Your task to perform on an android device: Open notification settings Image 0: 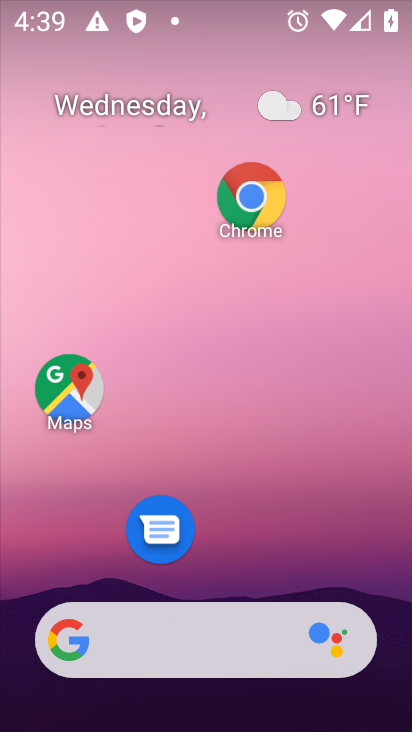
Step 0: drag from (251, 572) to (279, 82)
Your task to perform on an android device: Open notification settings Image 1: 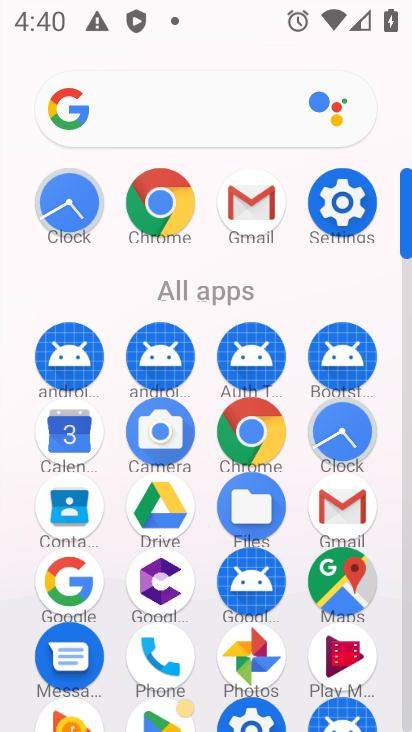
Step 1: click (346, 203)
Your task to perform on an android device: Open notification settings Image 2: 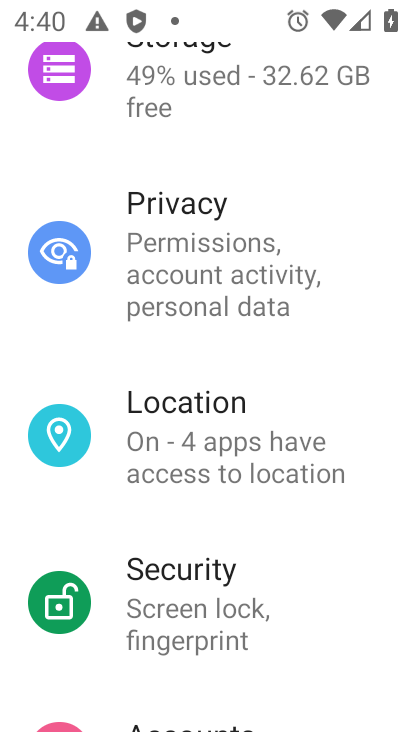
Step 2: drag from (260, 265) to (197, 640)
Your task to perform on an android device: Open notification settings Image 3: 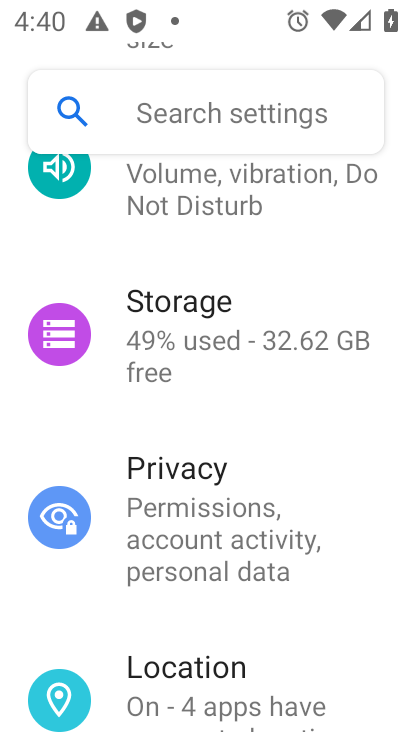
Step 3: drag from (202, 197) to (111, 716)
Your task to perform on an android device: Open notification settings Image 4: 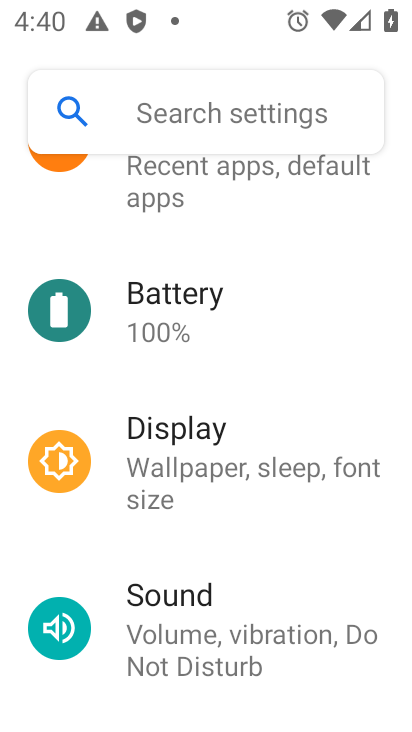
Step 4: drag from (245, 260) to (203, 719)
Your task to perform on an android device: Open notification settings Image 5: 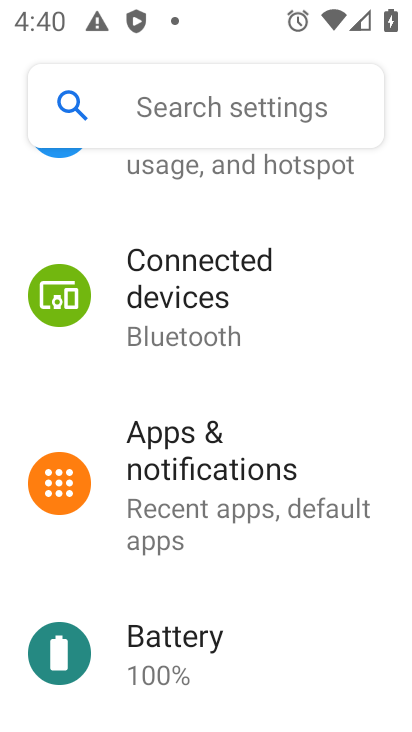
Step 5: drag from (241, 276) to (226, 624)
Your task to perform on an android device: Open notification settings Image 6: 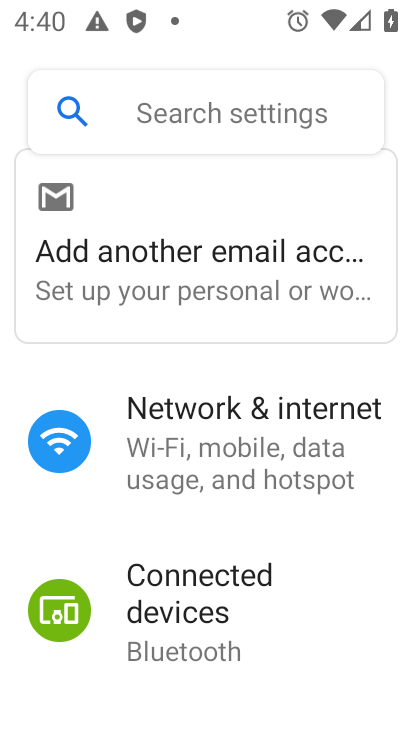
Step 6: drag from (211, 605) to (233, 427)
Your task to perform on an android device: Open notification settings Image 7: 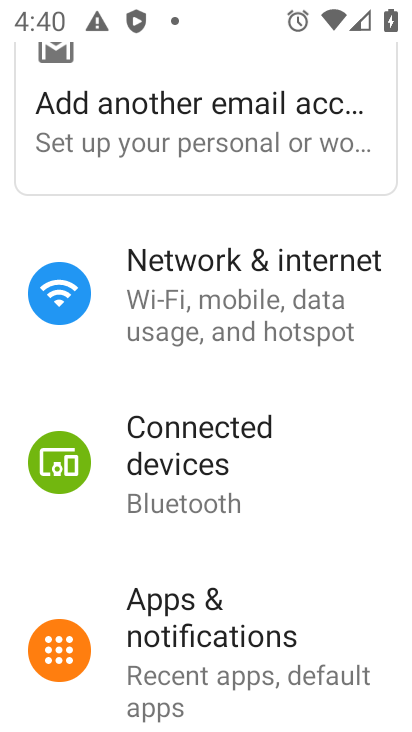
Step 7: click (192, 638)
Your task to perform on an android device: Open notification settings Image 8: 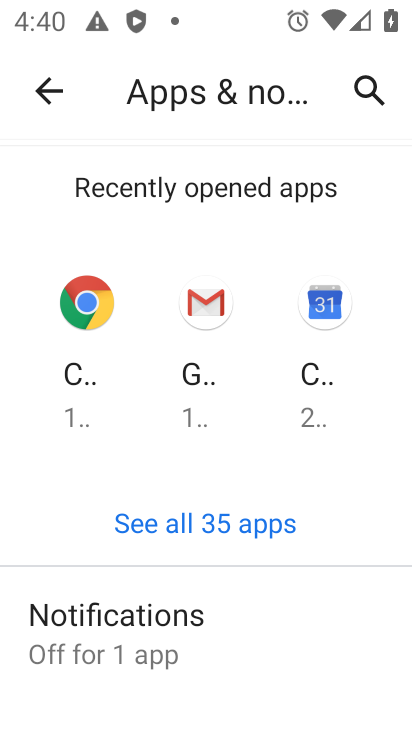
Step 8: drag from (190, 597) to (204, 352)
Your task to perform on an android device: Open notification settings Image 9: 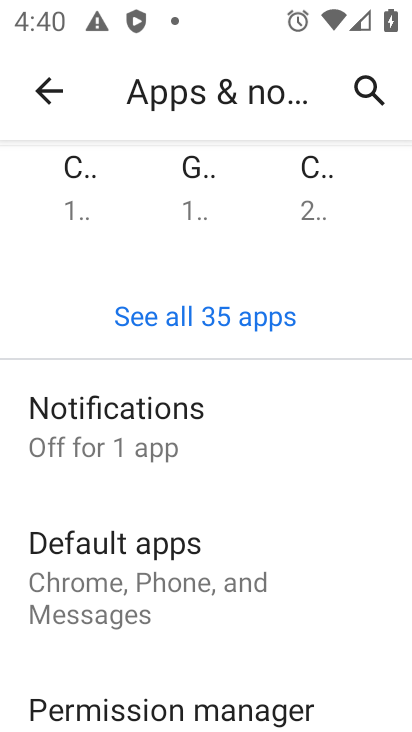
Step 9: click (143, 418)
Your task to perform on an android device: Open notification settings Image 10: 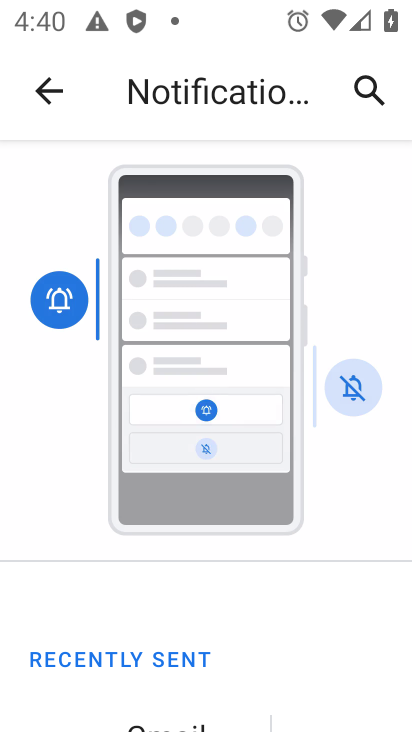
Step 10: task complete